Your task to perform on an android device: turn notification dots off Image 0: 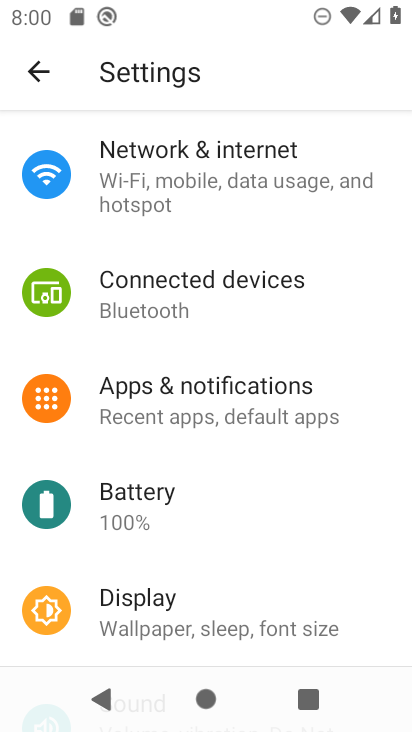
Step 0: drag from (239, 195) to (240, 541)
Your task to perform on an android device: turn notification dots off Image 1: 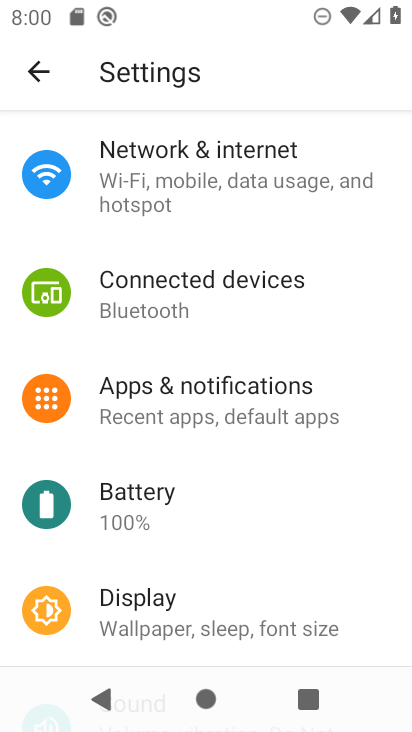
Step 1: click (236, 409)
Your task to perform on an android device: turn notification dots off Image 2: 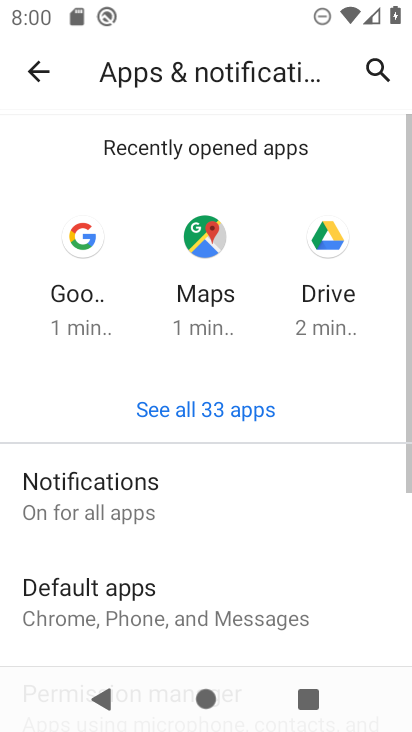
Step 2: drag from (242, 523) to (258, 156)
Your task to perform on an android device: turn notification dots off Image 3: 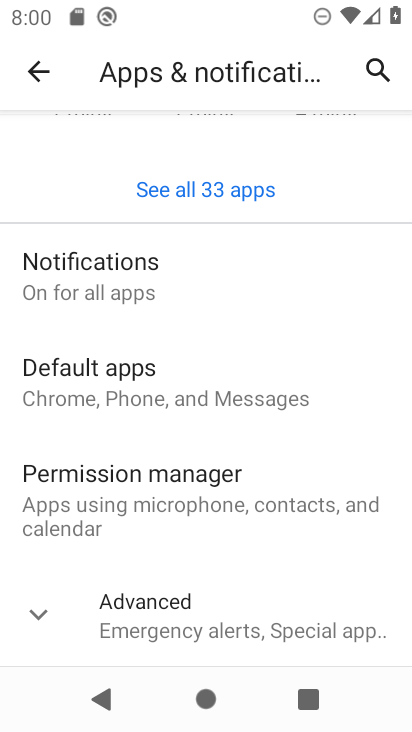
Step 3: click (56, 613)
Your task to perform on an android device: turn notification dots off Image 4: 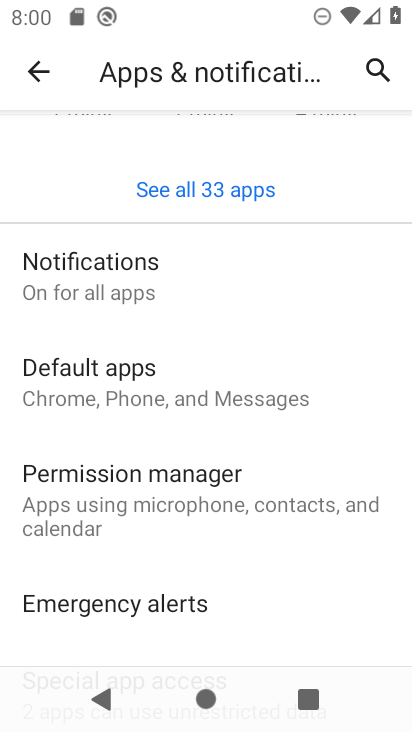
Step 4: click (171, 270)
Your task to perform on an android device: turn notification dots off Image 5: 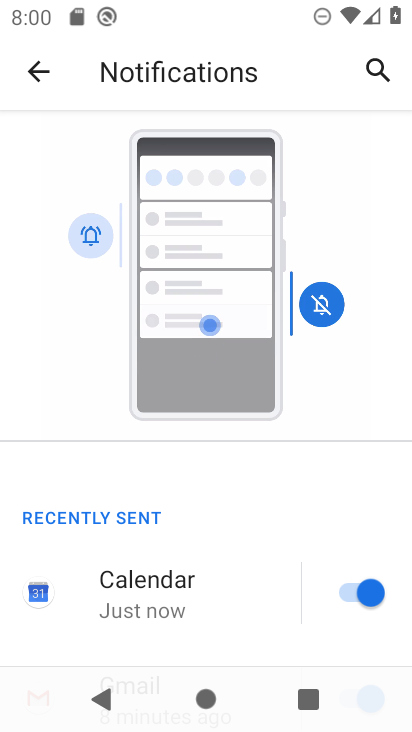
Step 5: drag from (230, 614) to (245, 165)
Your task to perform on an android device: turn notification dots off Image 6: 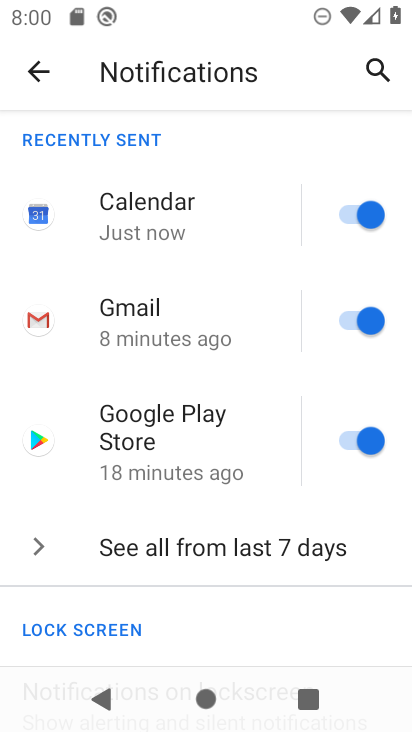
Step 6: drag from (219, 603) to (249, 212)
Your task to perform on an android device: turn notification dots off Image 7: 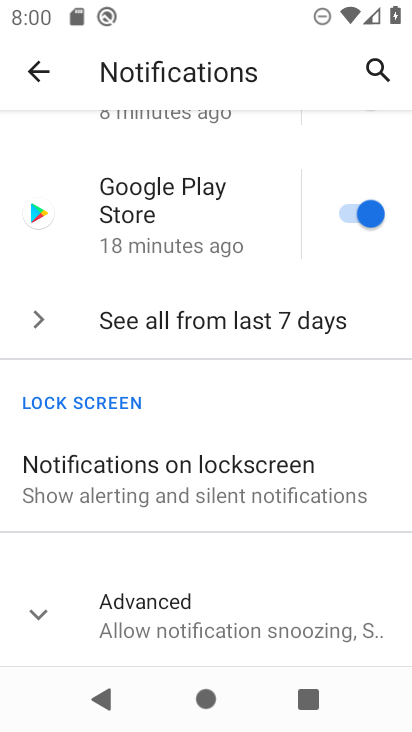
Step 7: click (75, 627)
Your task to perform on an android device: turn notification dots off Image 8: 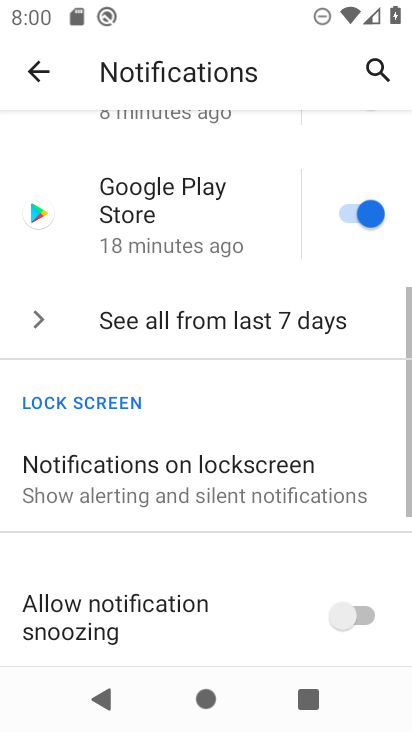
Step 8: drag from (202, 577) to (248, 220)
Your task to perform on an android device: turn notification dots off Image 9: 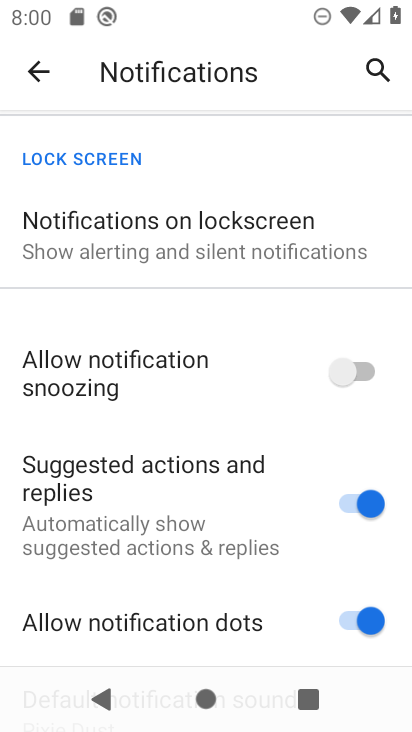
Step 9: click (361, 616)
Your task to perform on an android device: turn notification dots off Image 10: 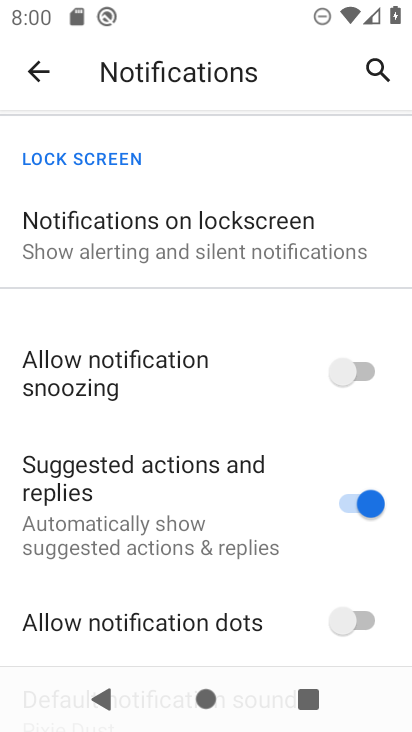
Step 10: task complete